Your task to perform on an android device: Go to display settings Image 0: 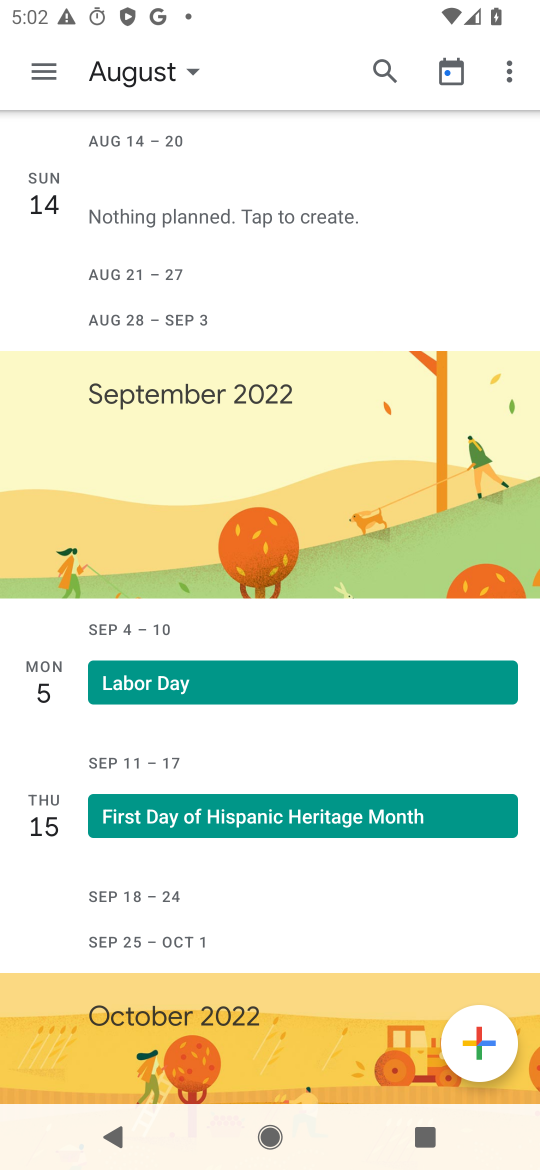
Step 0: press home button
Your task to perform on an android device: Go to display settings Image 1: 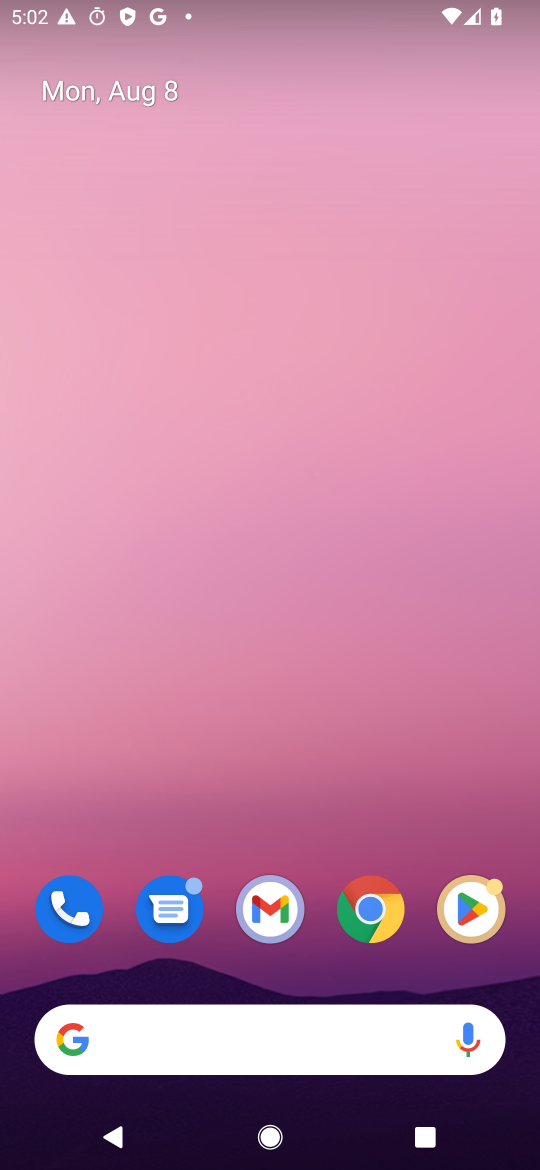
Step 1: drag from (263, 1018) to (378, 153)
Your task to perform on an android device: Go to display settings Image 2: 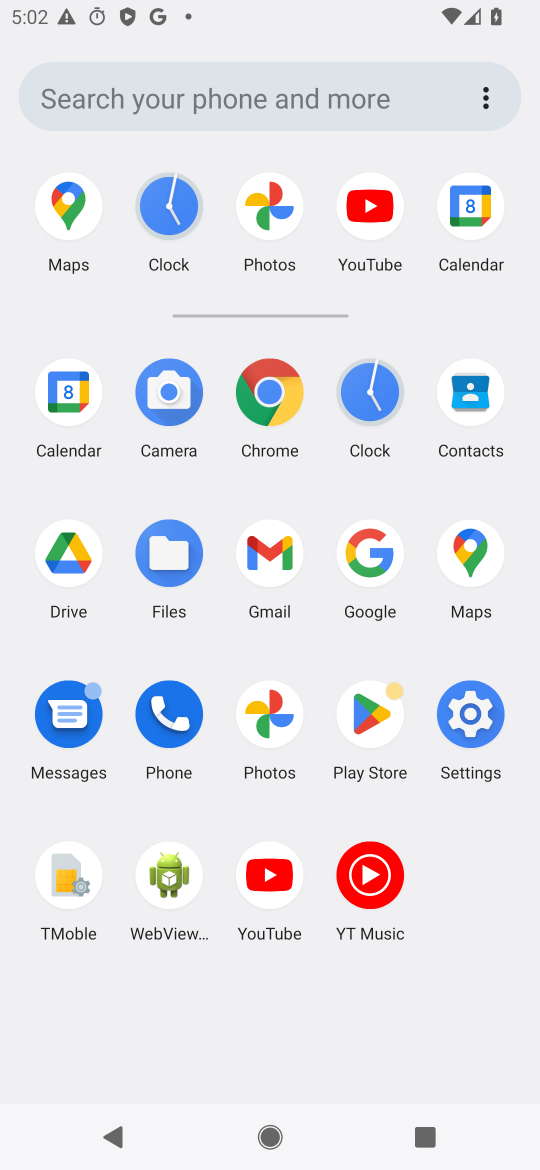
Step 2: click (503, 717)
Your task to perform on an android device: Go to display settings Image 3: 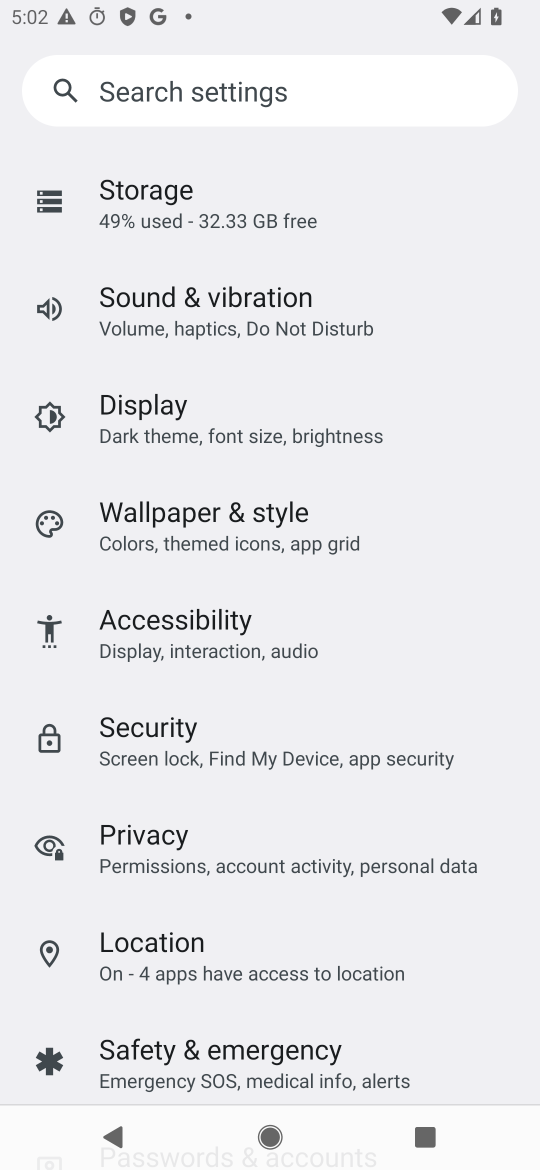
Step 3: click (192, 403)
Your task to perform on an android device: Go to display settings Image 4: 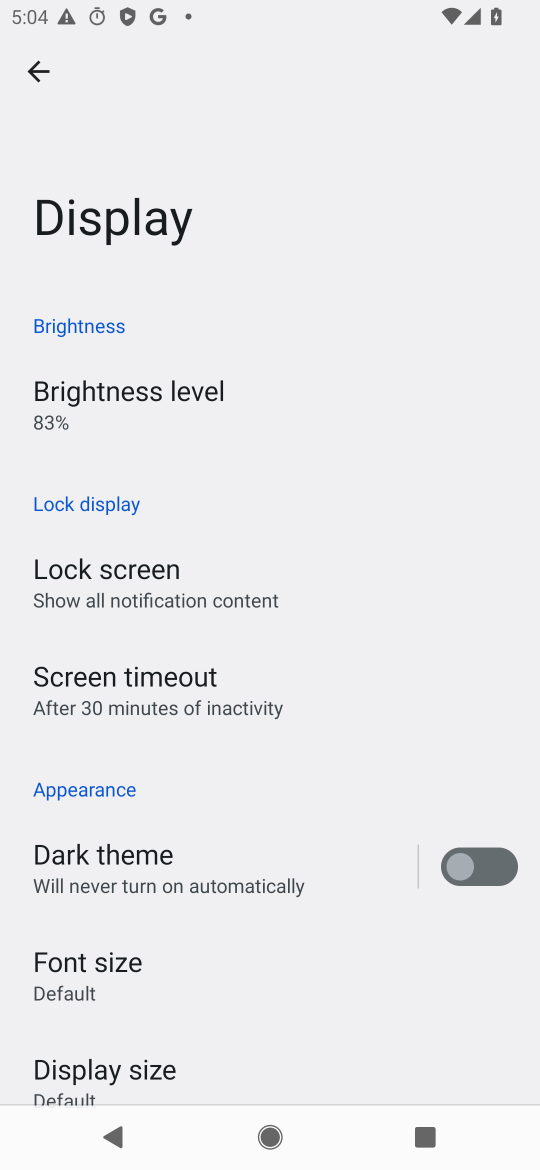
Step 4: task complete